Your task to perform on an android device: Show me popular videos on Youtube Image 0: 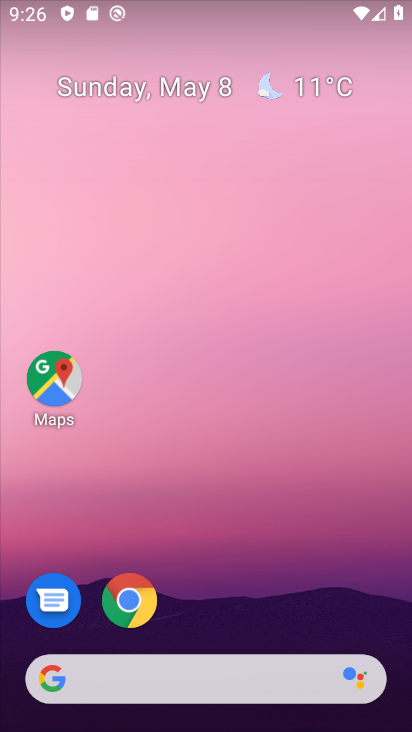
Step 0: drag from (250, 562) to (246, 25)
Your task to perform on an android device: Show me popular videos on Youtube Image 1: 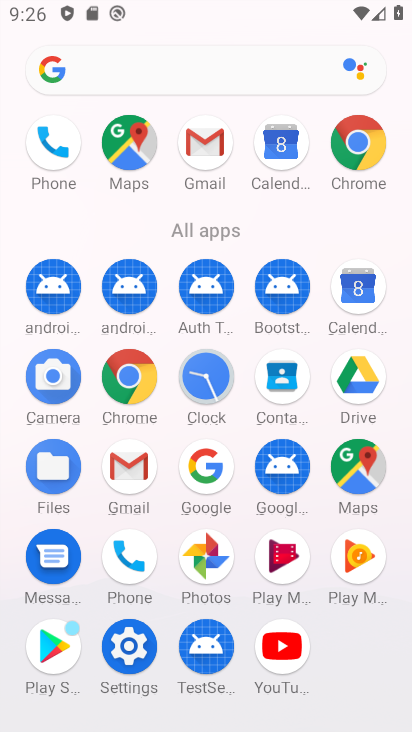
Step 1: click (278, 643)
Your task to perform on an android device: Show me popular videos on Youtube Image 2: 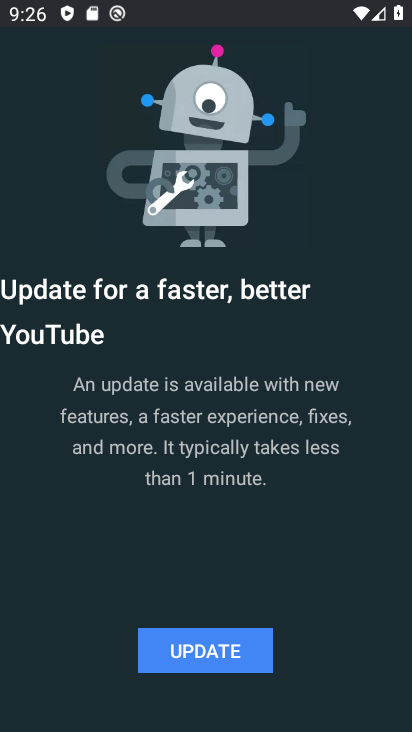
Step 2: click (246, 654)
Your task to perform on an android device: Show me popular videos on Youtube Image 3: 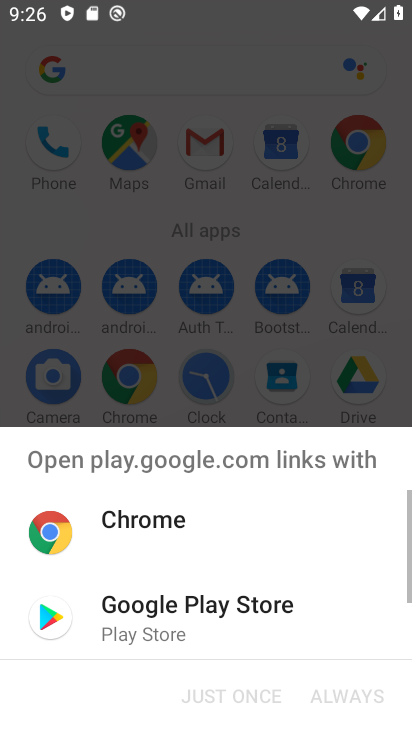
Step 3: click (234, 617)
Your task to perform on an android device: Show me popular videos on Youtube Image 4: 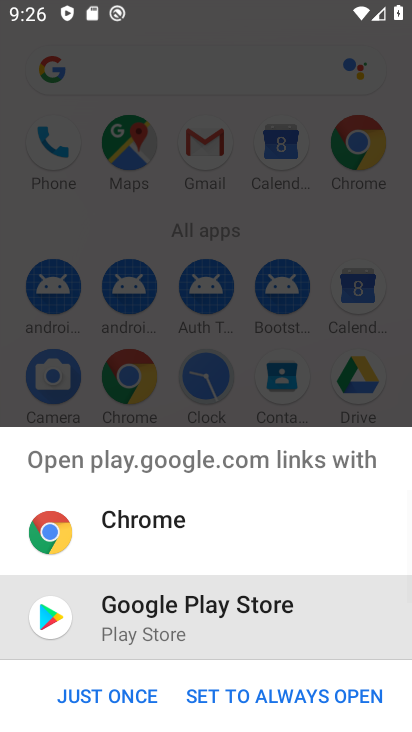
Step 4: click (117, 701)
Your task to perform on an android device: Show me popular videos on Youtube Image 5: 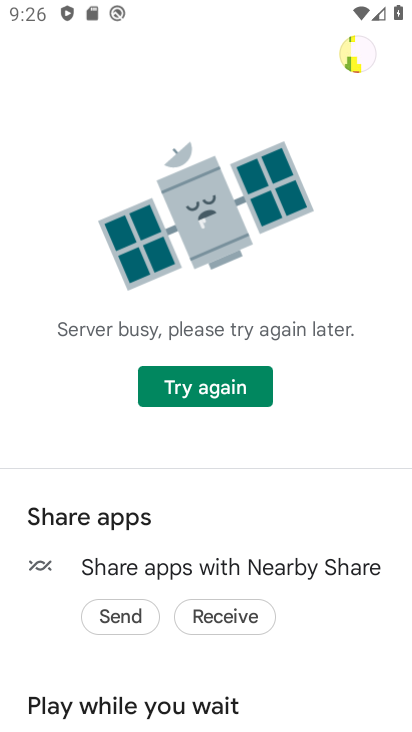
Step 5: click (189, 380)
Your task to perform on an android device: Show me popular videos on Youtube Image 6: 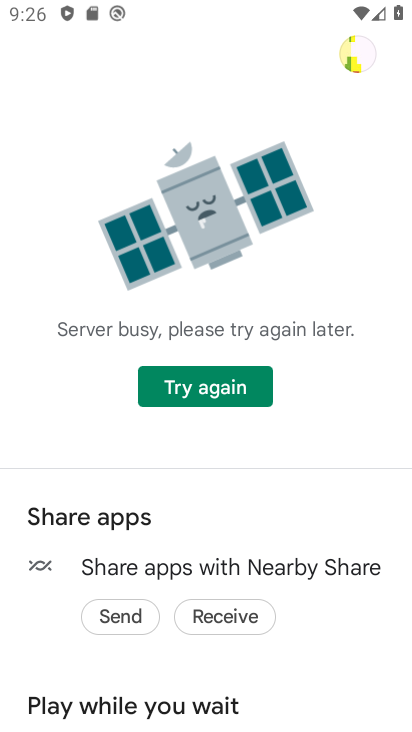
Step 6: task complete